Your task to perform on an android device: Go to network settings Image 0: 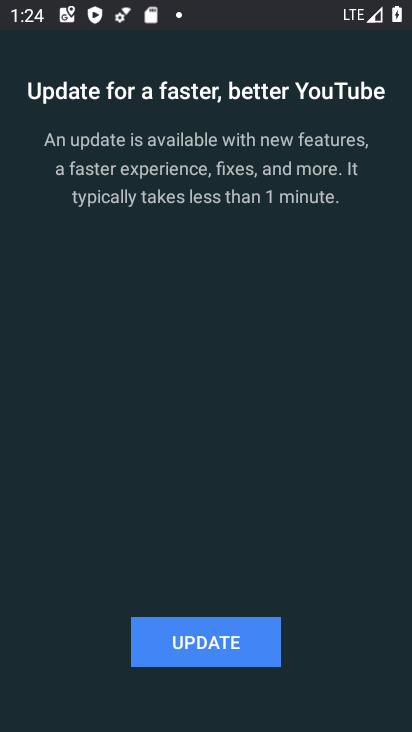
Step 0: press home button
Your task to perform on an android device: Go to network settings Image 1: 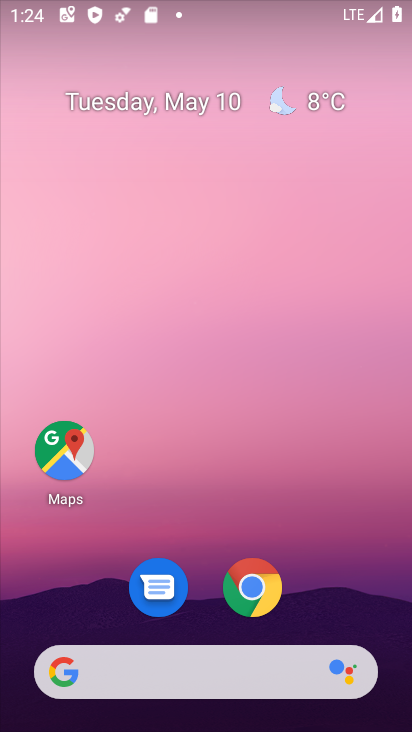
Step 1: drag from (319, 560) to (281, 36)
Your task to perform on an android device: Go to network settings Image 2: 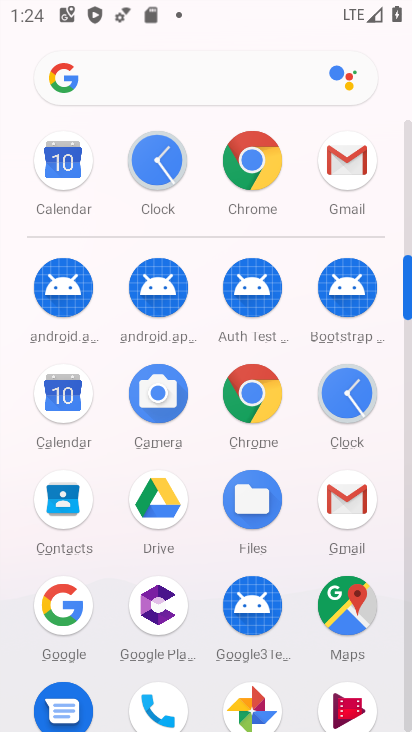
Step 2: drag from (204, 403) to (199, 143)
Your task to perform on an android device: Go to network settings Image 3: 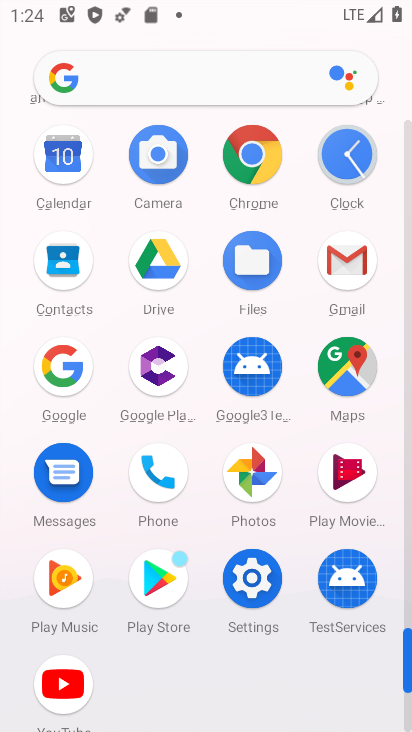
Step 3: click (256, 590)
Your task to perform on an android device: Go to network settings Image 4: 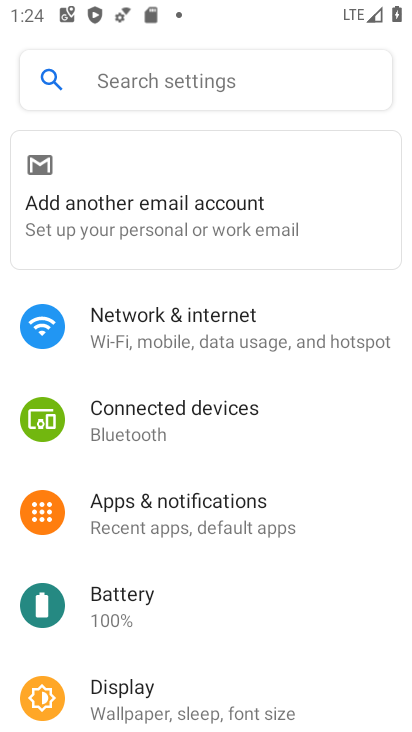
Step 4: click (195, 317)
Your task to perform on an android device: Go to network settings Image 5: 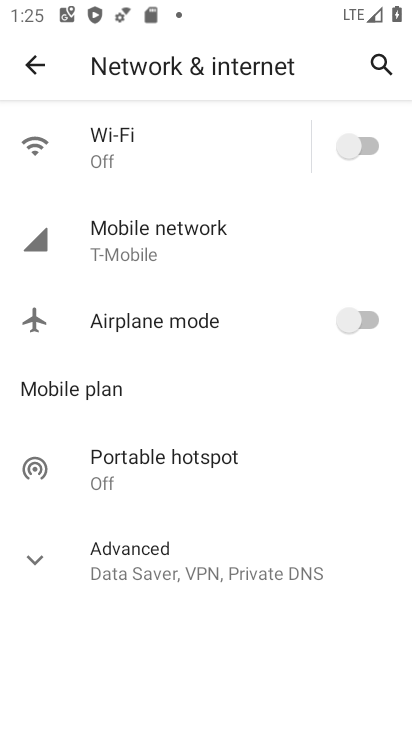
Step 5: press home button
Your task to perform on an android device: Go to network settings Image 6: 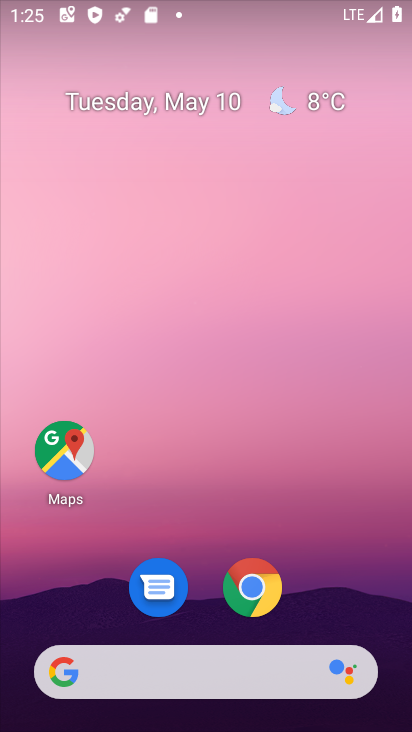
Step 6: drag from (325, 559) to (267, 97)
Your task to perform on an android device: Go to network settings Image 7: 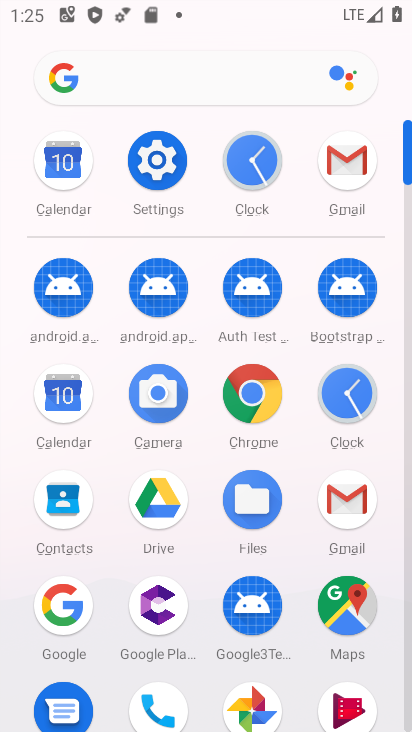
Step 7: click (155, 176)
Your task to perform on an android device: Go to network settings Image 8: 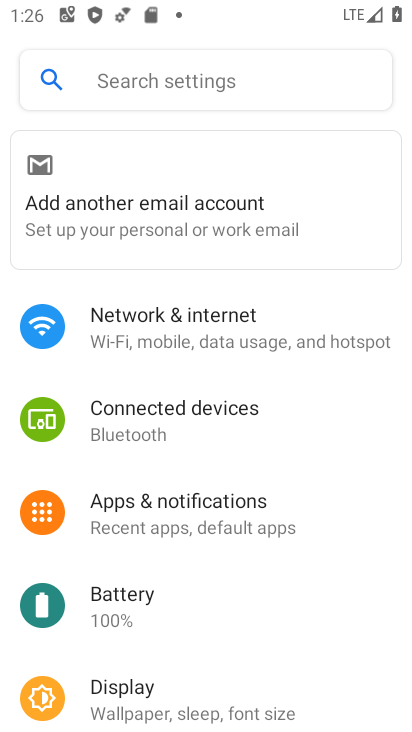
Step 8: click (205, 325)
Your task to perform on an android device: Go to network settings Image 9: 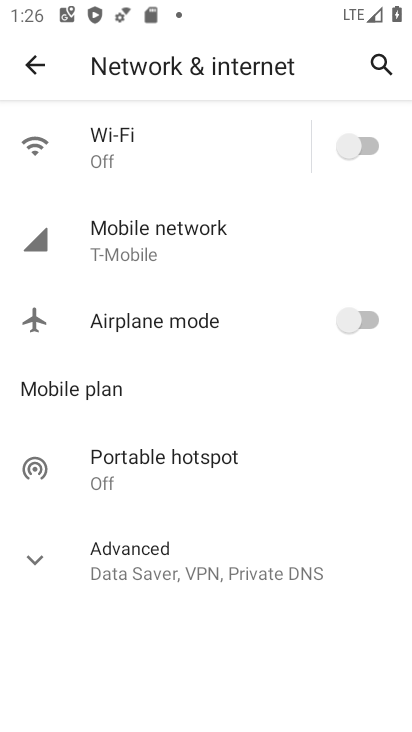
Step 9: task complete